Your task to perform on an android device: Open network settings Image 0: 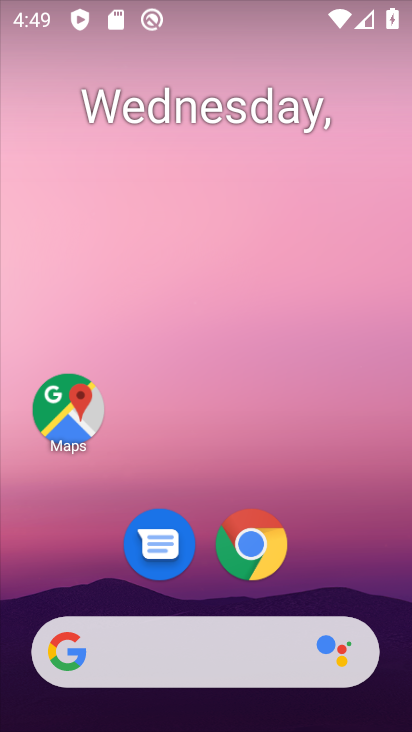
Step 0: drag from (235, 597) to (380, 116)
Your task to perform on an android device: Open network settings Image 1: 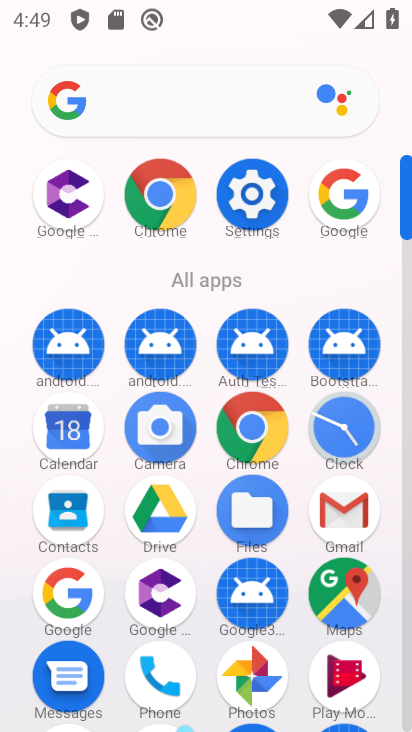
Step 1: click (270, 211)
Your task to perform on an android device: Open network settings Image 2: 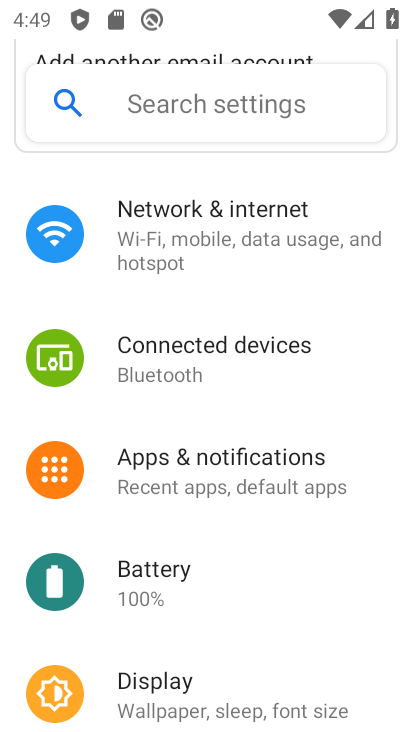
Step 2: click (200, 271)
Your task to perform on an android device: Open network settings Image 3: 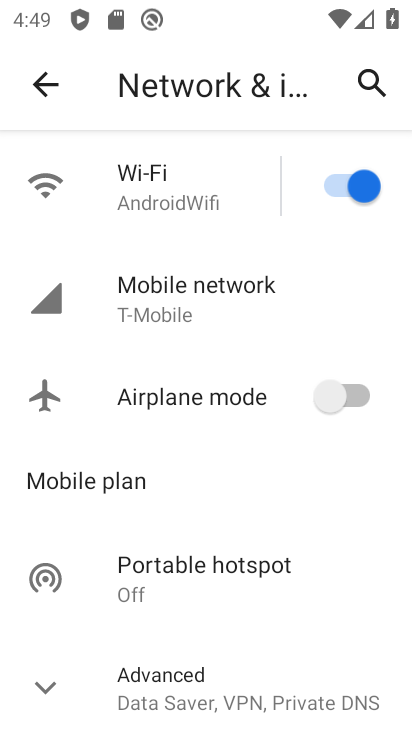
Step 3: click (202, 275)
Your task to perform on an android device: Open network settings Image 4: 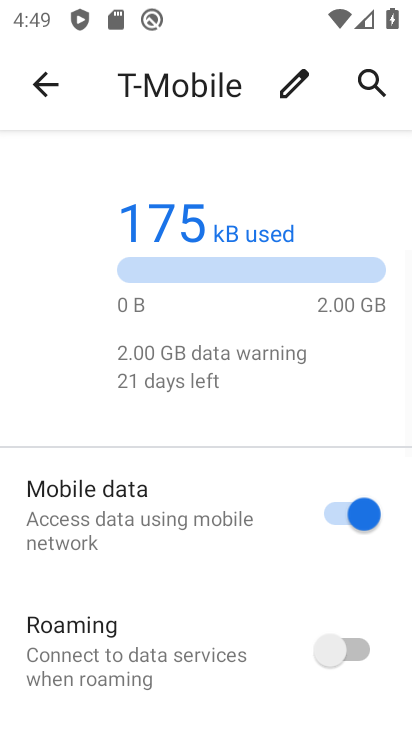
Step 4: task complete